Your task to perform on an android device: Turn off the flashlight Image 0: 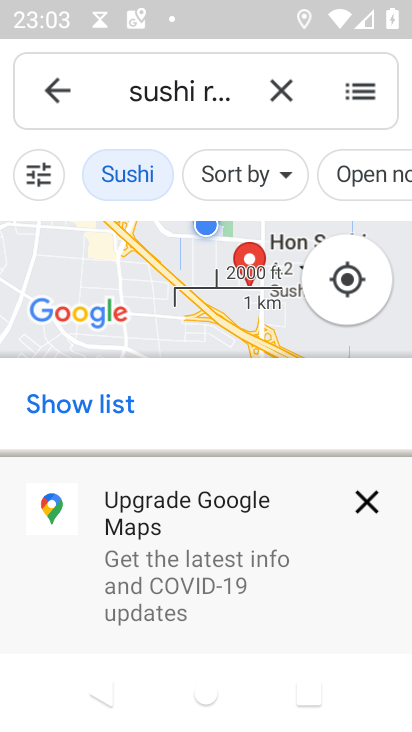
Step 0: press home button
Your task to perform on an android device: Turn off the flashlight Image 1: 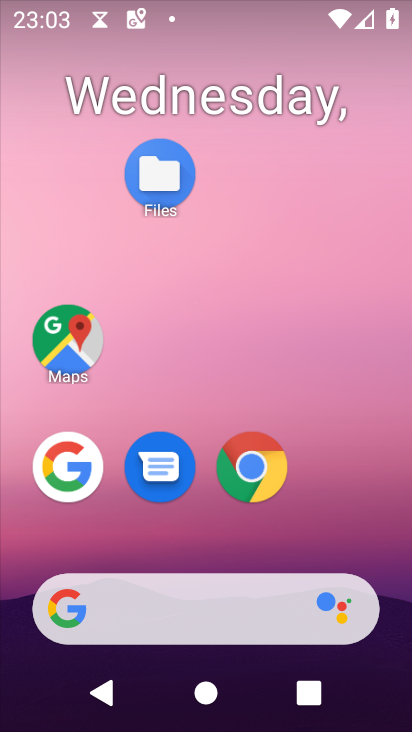
Step 1: drag from (189, 549) to (154, 67)
Your task to perform on an android device: Turn off the flashlight Image 2: 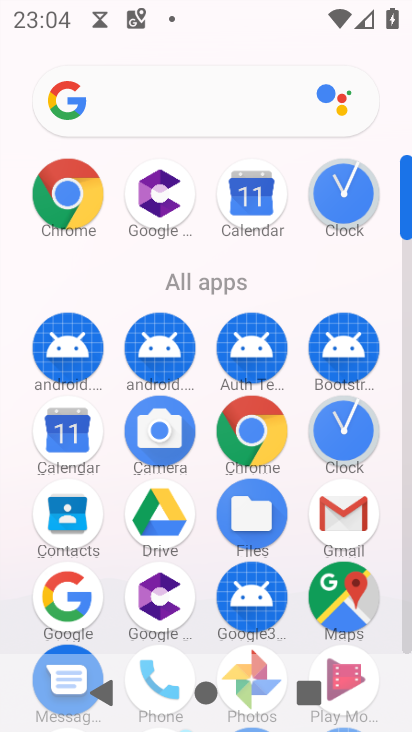
Step 2: drag from (206, 567) to (153, 230)
Your task to perform on an android device: Turn off the flashlight Image 3: 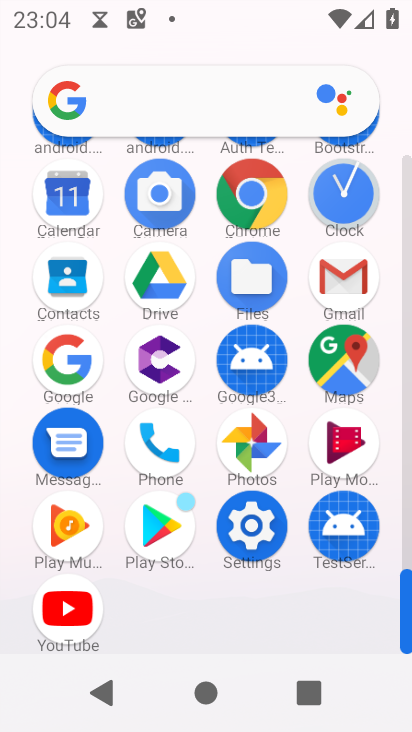
Step 3: click (253, 524)
Your task to perform on an android device: Turn off the flashlight Image 4: 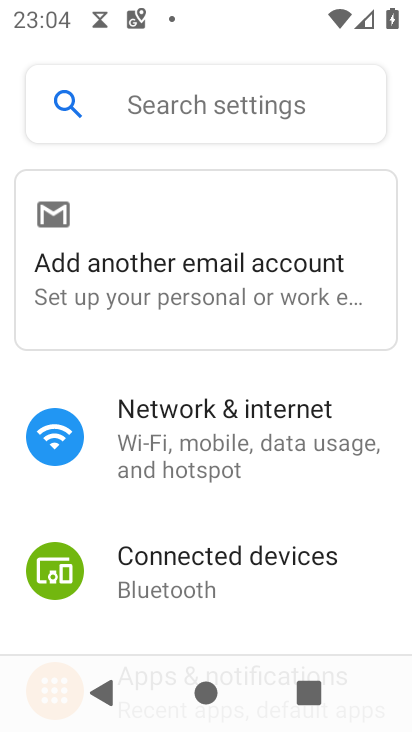
Step 4: click (221, 133)
Your task to perform on an android device: Turn off the flashlight Image 5: 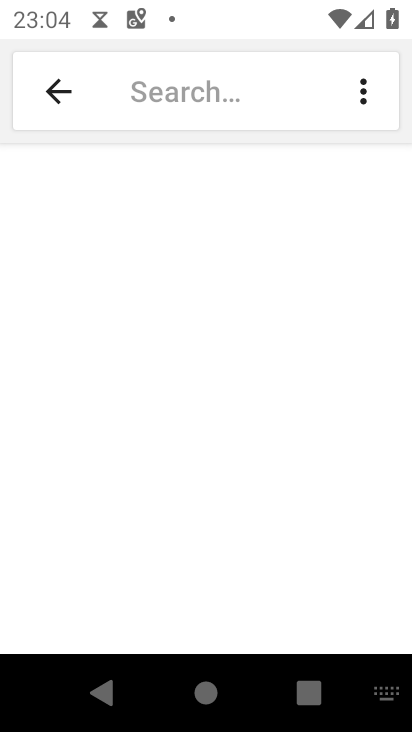
Step 5: type "flashlight"
Your task to perform on an android device: Turn off the flashlight Image 6: 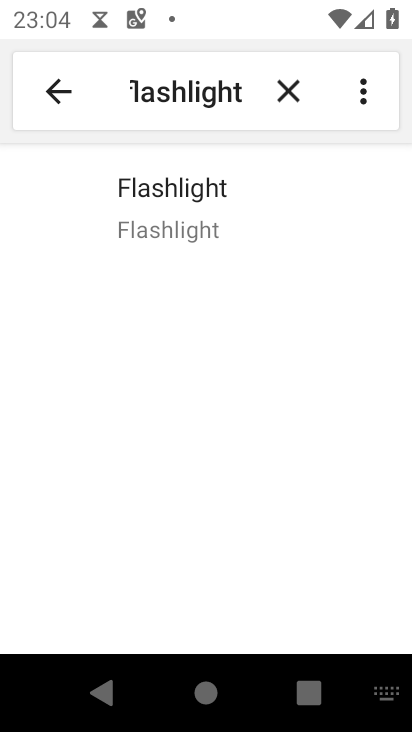
Step 6: task complete